Your task to perform on an android device: open chrome privacy settings Image 0: 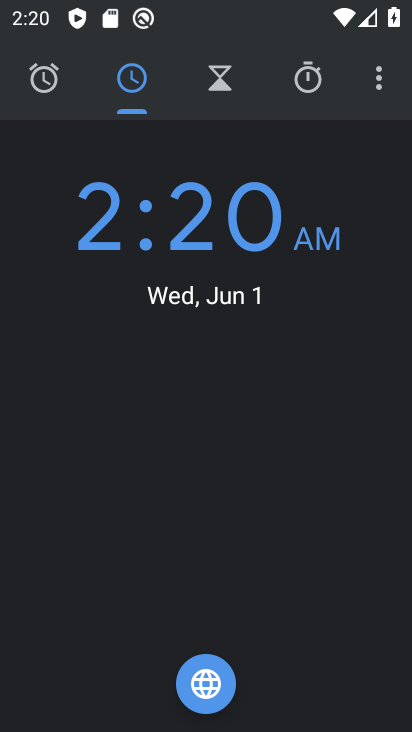
Step 0: task complete